Your task to perform on an android device: change notification settings in the gmail app Image 0: 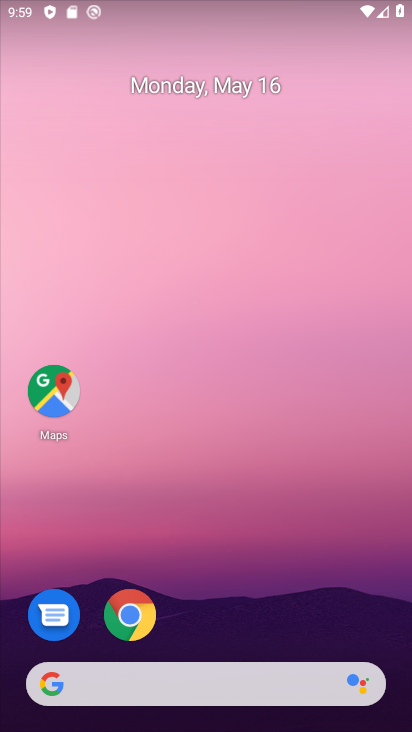
Step 0: drag from (251, 577) to (308, 130)
Your task to perform on an android device: change notification settings in the gmail app Image 1: 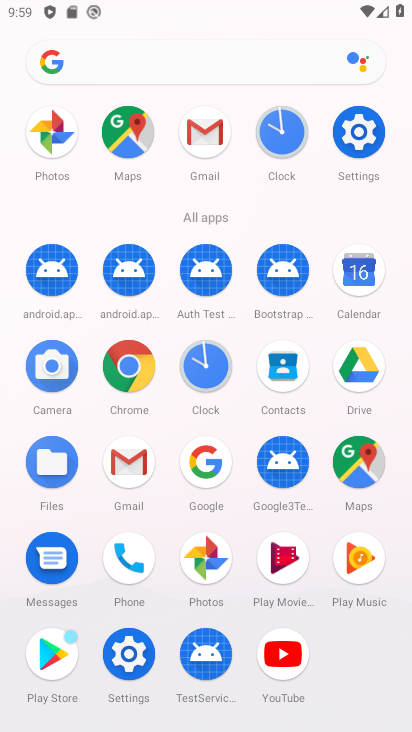
Step 1: click (197, 133)
Your task to perform on an android device: change notification settings in the gmail app Image 2: 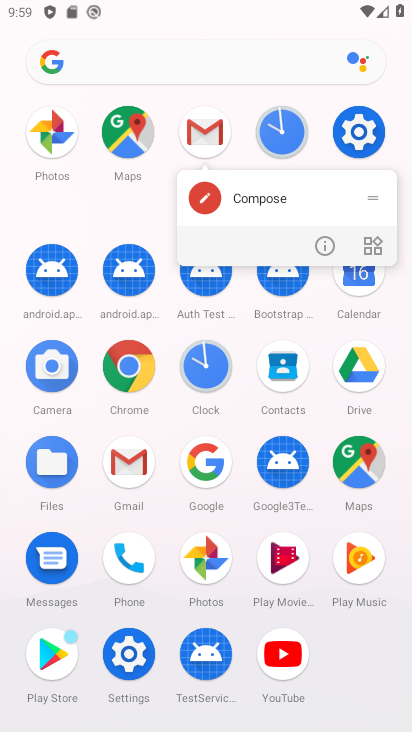
Step 2: click (324, 244)
Your task to perform on an android device: change notification settings in the gmail app Image 3: 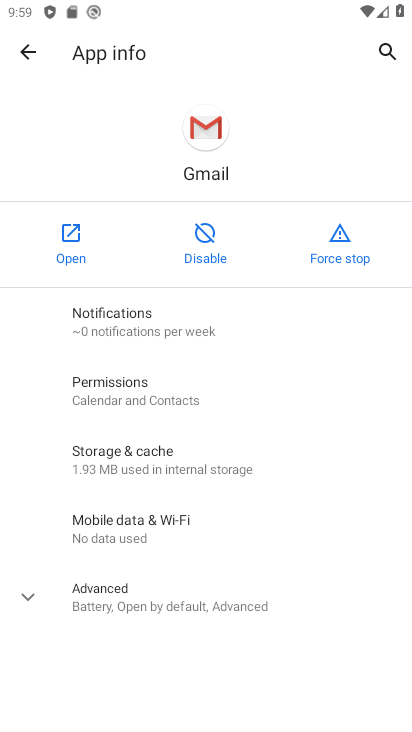
Step 3: click (159, 315)
Your task to perform on an android device: change notification settings in the gmail app Image 4: 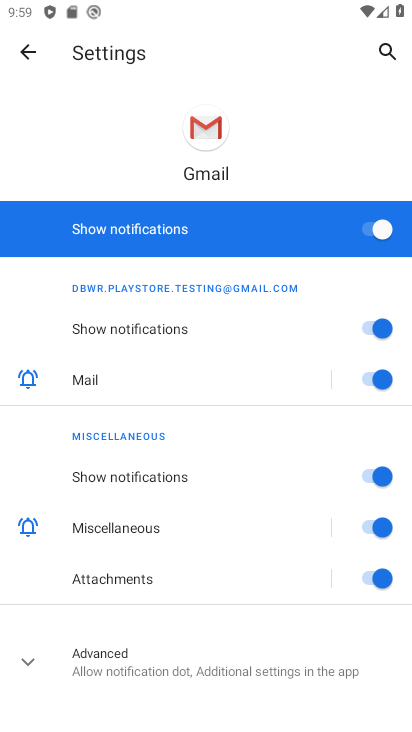
Step 4: click (378, 470)
Your task to perform on an android device: change notification settings in the gmail app Image 5: 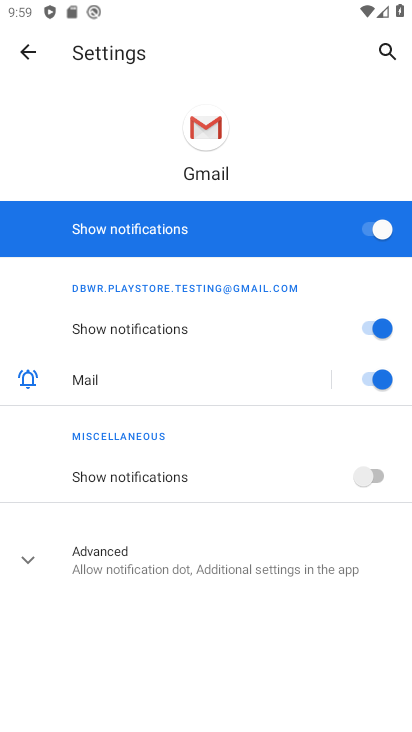
Step 5: task complete